Your task to perform on an android device: open the mobile data screen to see how much data has been used Image 0: 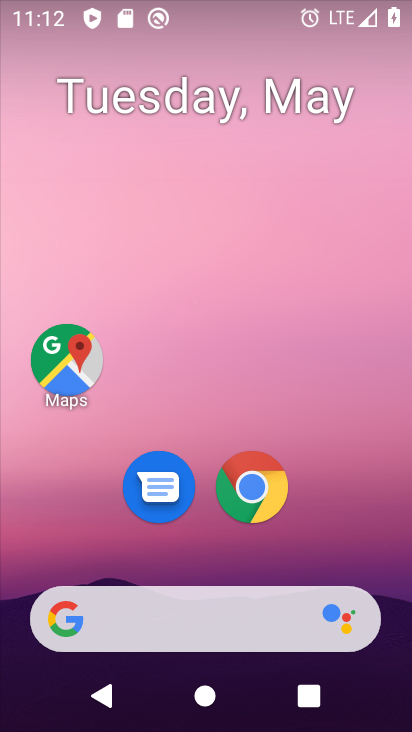
Step 0: drag from (195, 547) to (287, 38)
Your task to perform on an android device: open the mobile data screen to see how much data has been used Image 1: 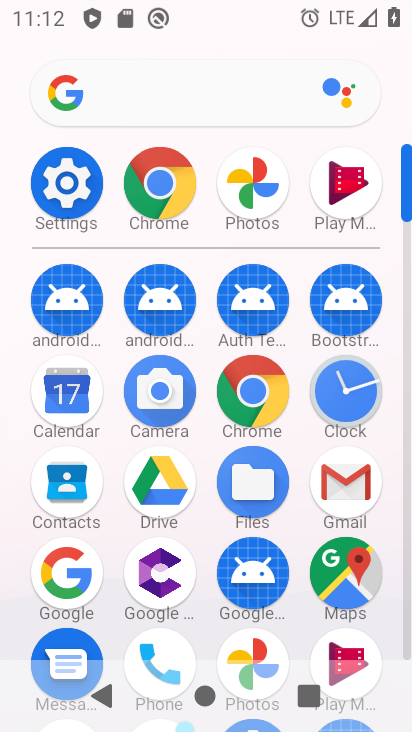
Step 1: click (65, 202)
Your task to perform on an android device: open the mobile data screen to see how much data has been used Image 2: 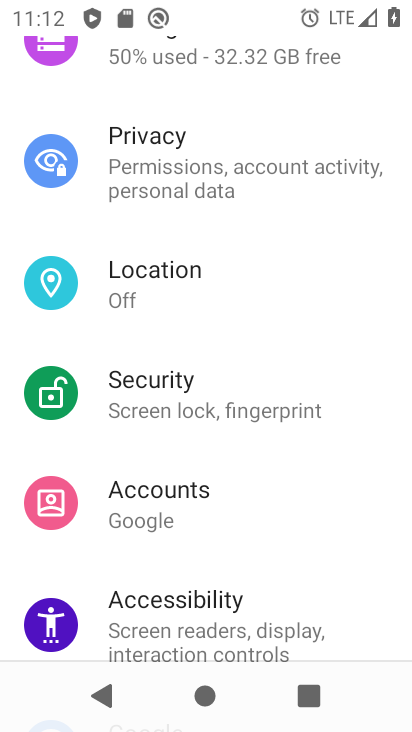
Step 2: drag from (229, 193) to (303, 700)
Your task to perform on an android device: open the mobile data screen to see how much data has been used Image 3: 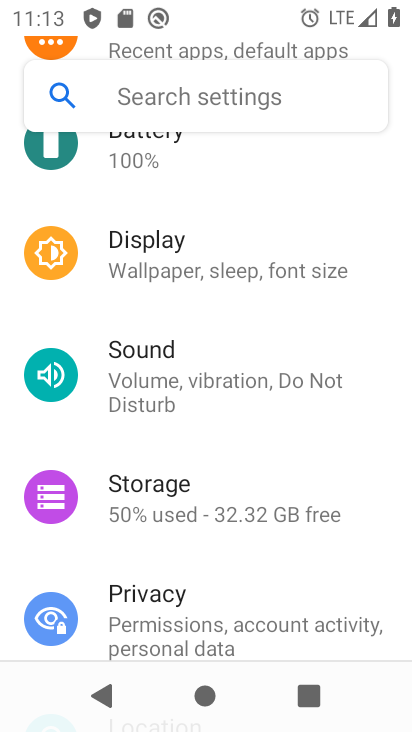
Step 3: drag from (184, 197) to (328, 728)
Your task to perform on an android device: open the mobile data screen to see how much data has been used Image 4: 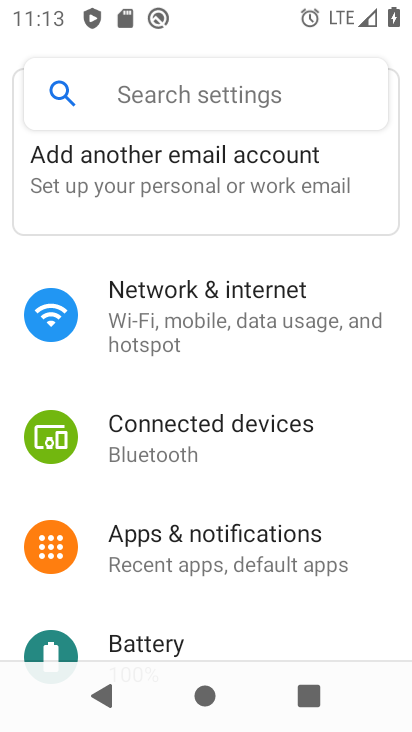
Step 4: click (169, 313)
Your task to perform on an android device: open the mobile data screen to see how much data has been used Image 5: 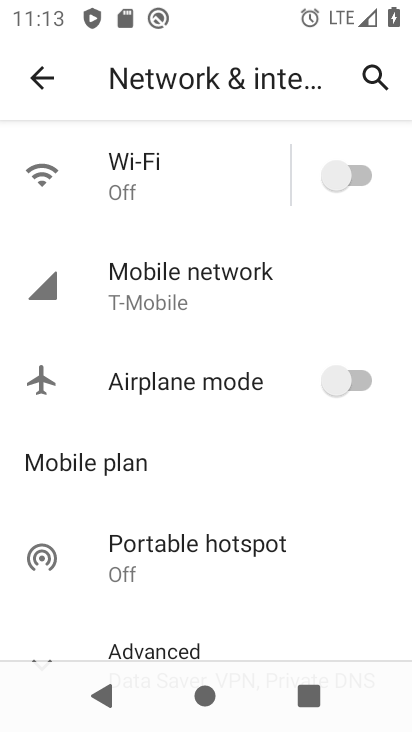
Step 5: drag from (179, 511) to (336, 625)
Your task to perform on an android device: open the mobile data screen to see how much data has been used Image 6: 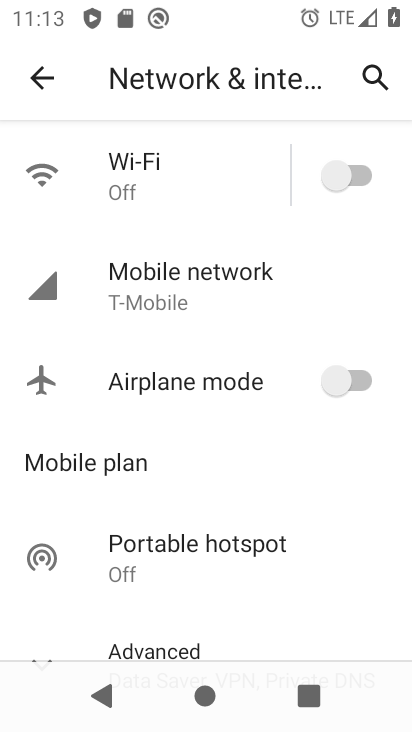
Step 6: click (225, 306)
Your task to perform on an android device: open the mobile data screen to see how much data has been used Image 7: 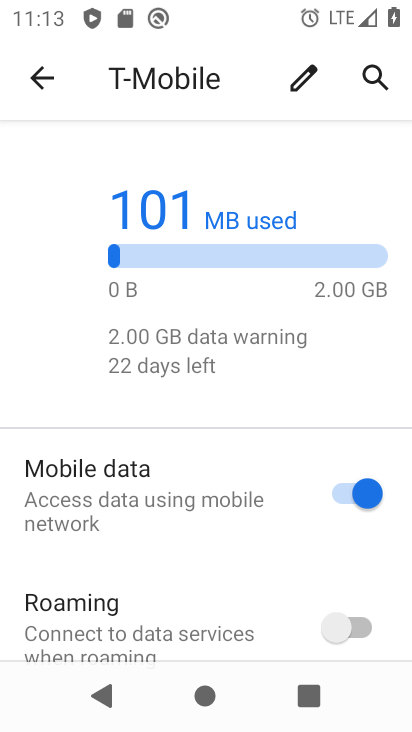
Step 7: task complete